Your task to perform on an android device: toggle show notifications on the lock screen Image 0: 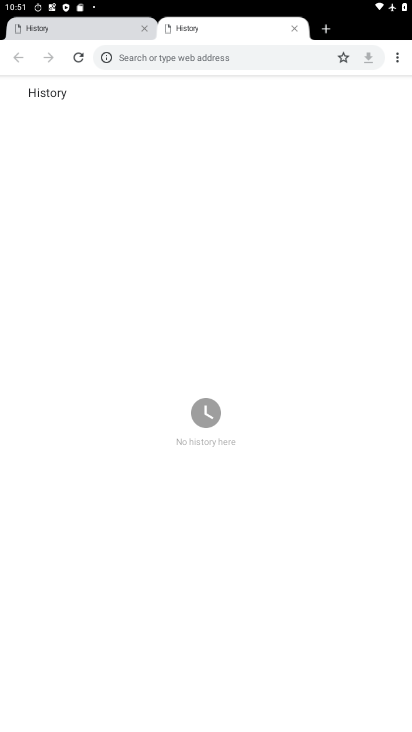
Step 0: press home button
Your task to perform on an android device: toggle show notifications on the lock screen Image 1: 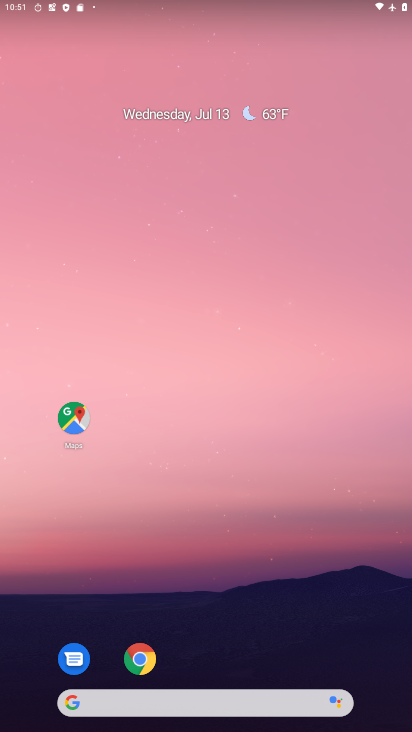
Step 1: drag from (336, 615) to (233, 127)
Your task to perform on an android device: toggle show notifications on the lock screen Image 2: 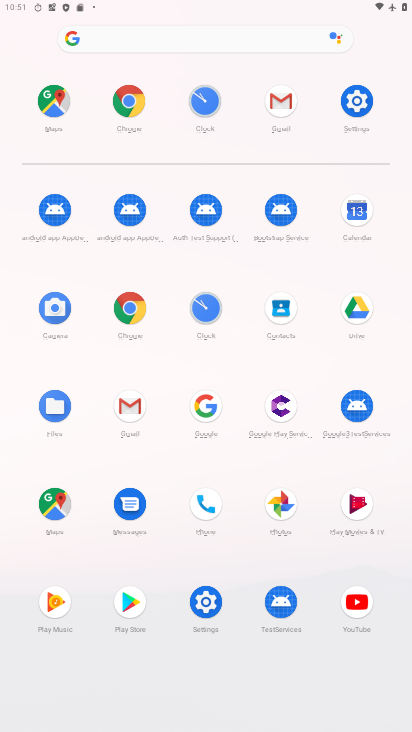
Step 2: click (366, 92)
Your task to perform on an android device: toggle show notifications on the lock screen Image 3: 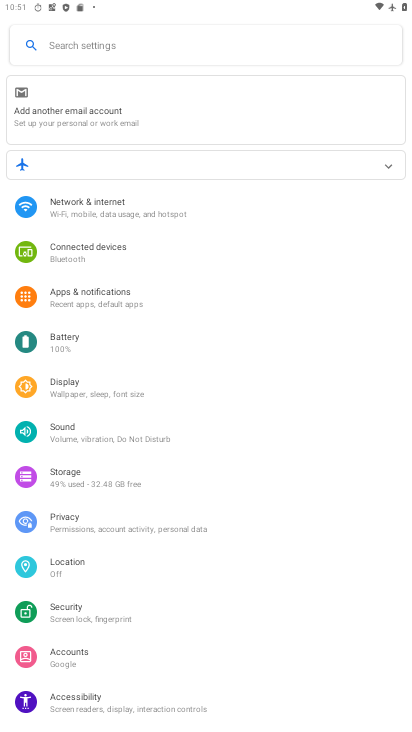
Step 3: click (106, 303)
Your task to perform on an android device: toggle show notifications on the lock screen Image 4: 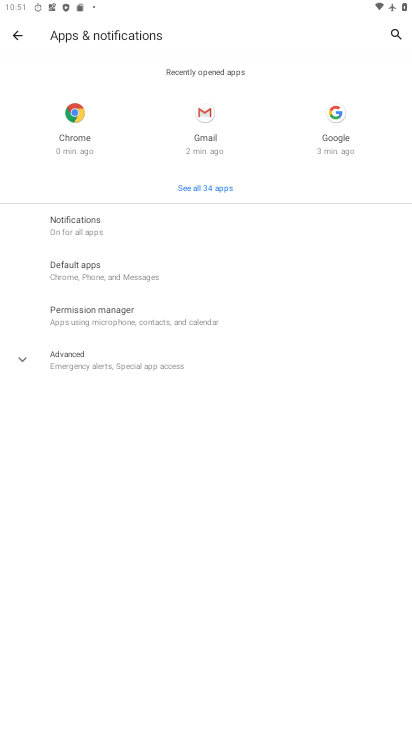
Step 4: click (102, 240)
Your task to perform on an android device: toggle show notifications on the lock screen Image 5: 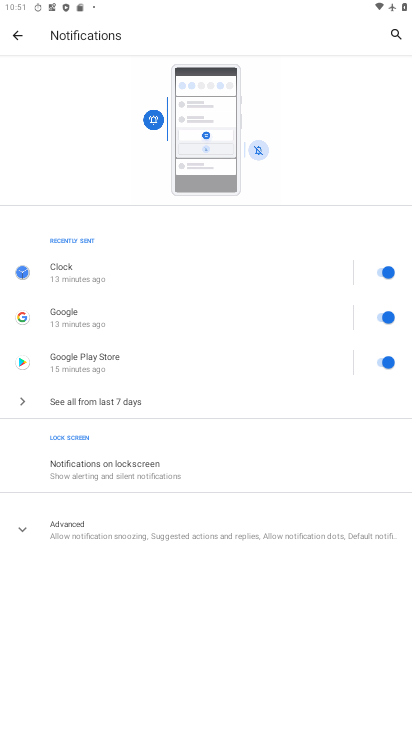
Step 5: click (95, 466)
Your task to perform on an android device: toggle show notifications on the lock screen Image 6: 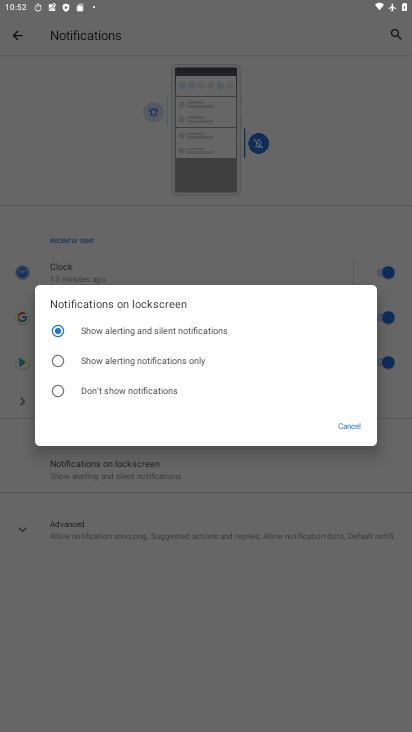
Step 6: click (140, 358)
Your task to perform on an android device: toggle show notifications on the lock screen Image 7: 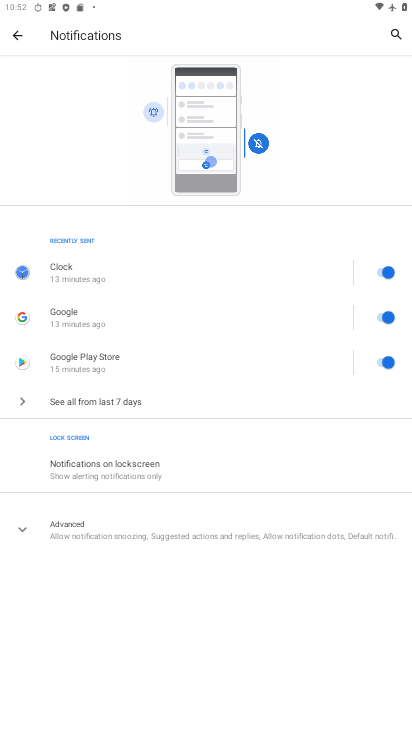
Step 7: task complete